Your task to perform on an android device: turn off sleep mode Image 0: 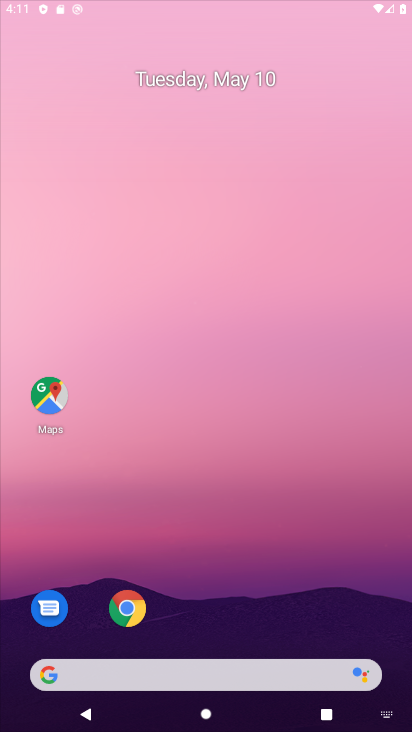
Step 0: drag from (297, 664) to (272, 27)
Your task to perform on an android device: turn off sleep mode Image 1: 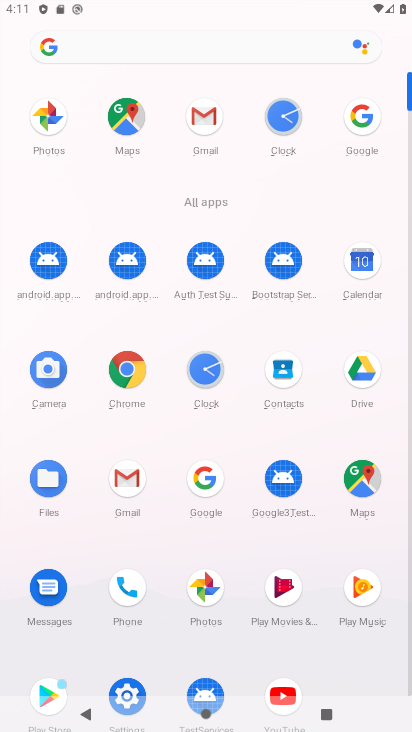
Step 1: drag from (171, 586) to (91, 34)
Your task to perform on an android device: turn off sleep mode Image 2: 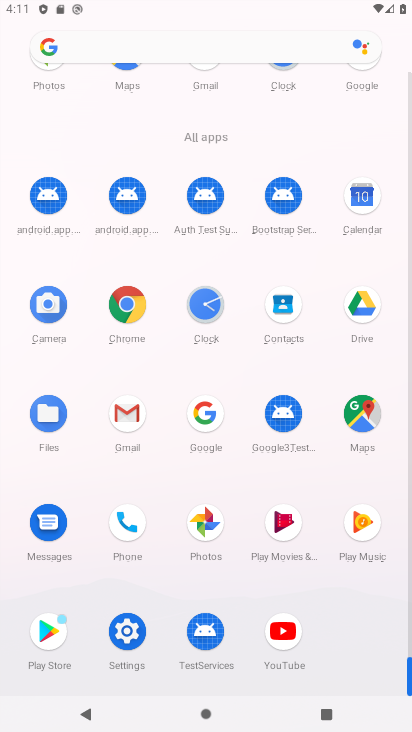
Step 2: click (131, 628)
Your task to perform on an android device: turn off sleep mode Image 3: 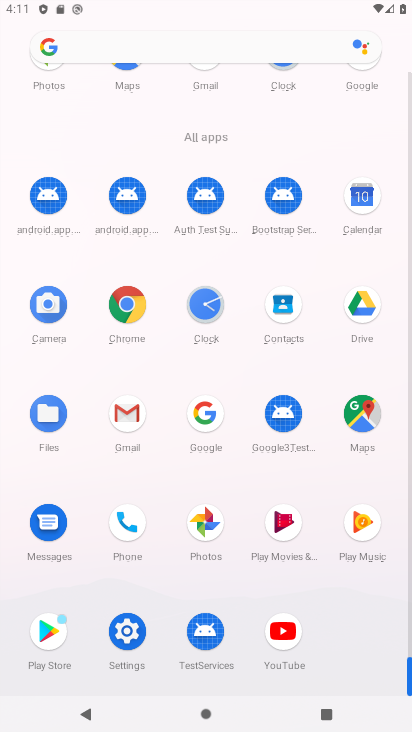
Step 3: click (131, 628)
Your task to perform on an android device: turn off sleep mode Image 4: 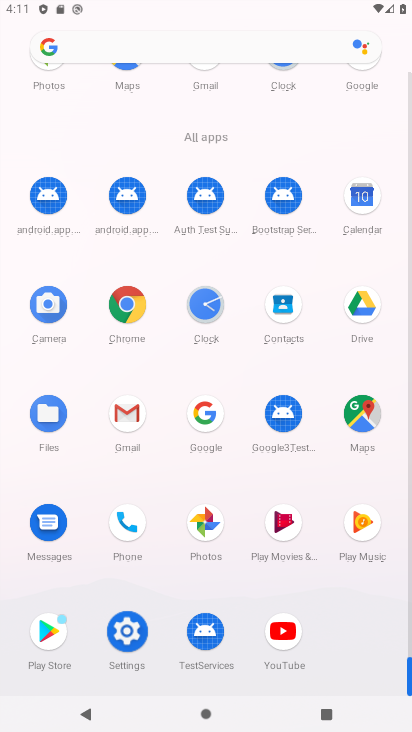
Step 4: click (116, 635)
Your task to perform on an android device: turn off sleep mode Image 5: 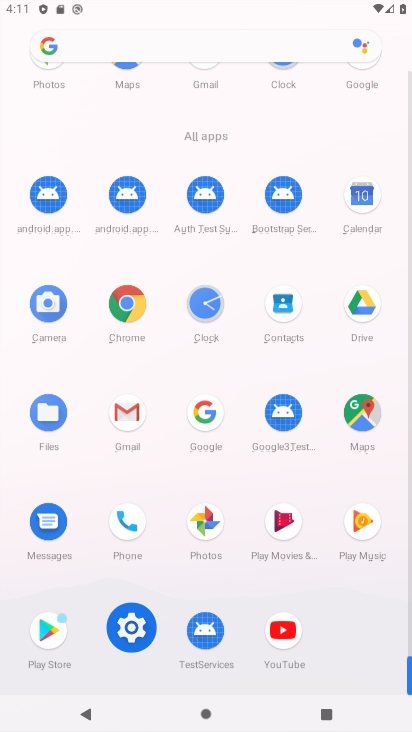
Step 5: drag from (115, 635) to (156, 640)
Your task to perform on an android device: turn off sleep mode Image 6: 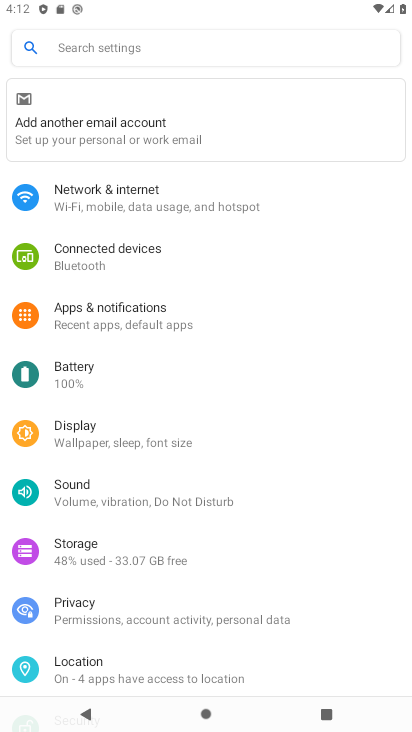
Step 6: click (78, 433)
Your task to perform on an android device: turn off sleep mode Image 7: 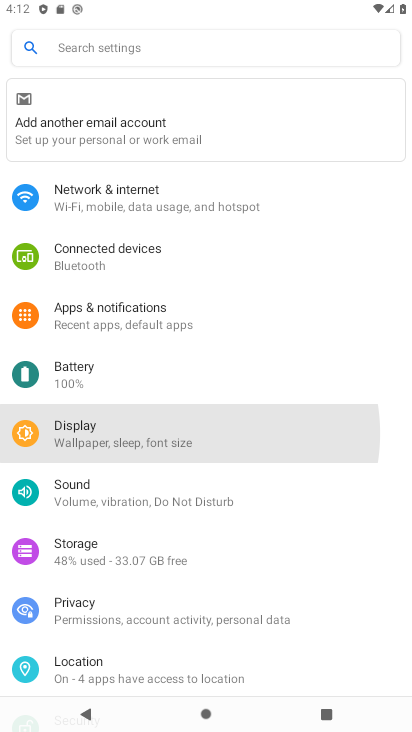
Step 7: click (78, 433)
Your task to perform on an android device: turn off sleep mode Image 8: 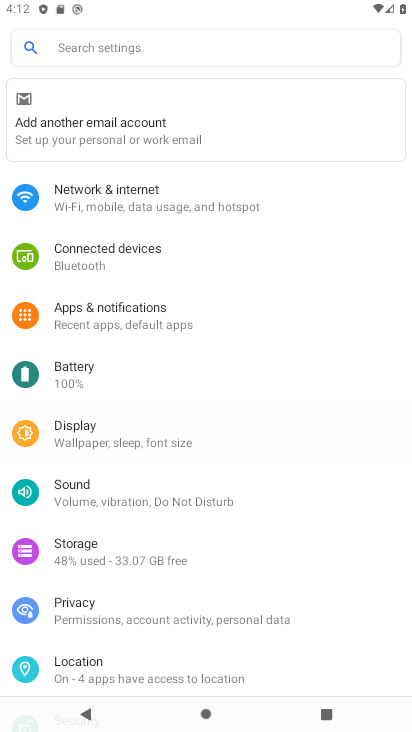
Step 8: click (74, 436)
Your task to perform on an android device: turn off sleep mode Image 9: 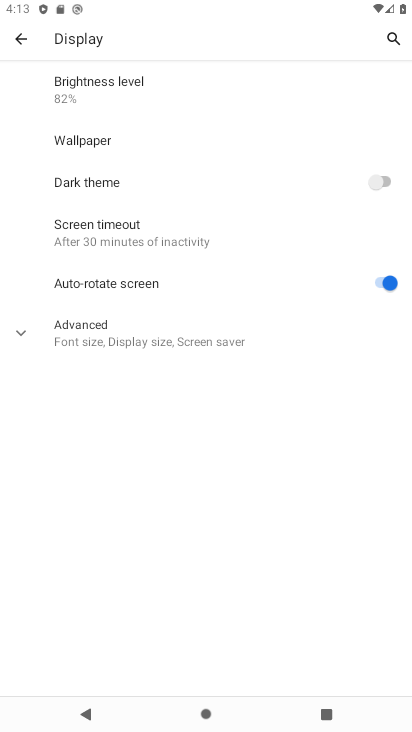
Step 9: click (16, 29)
Your task to perform on an android device: turn off sleep mode Image 10: 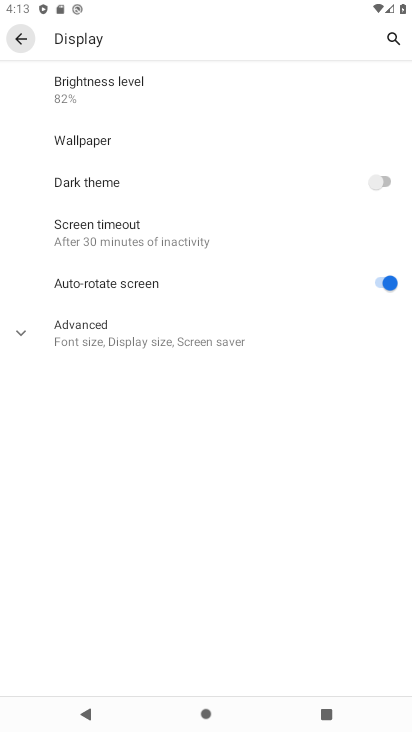
Step 10: click (16, 29)
Your task to perform on an android device: turn off sleep mode Image 11: 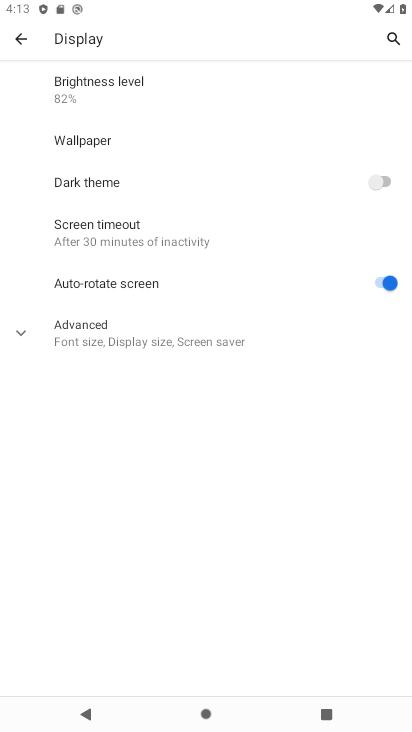
Step 11: click (16, 29)
Your task to perform on an android device: turn off sleep mode Image 12: 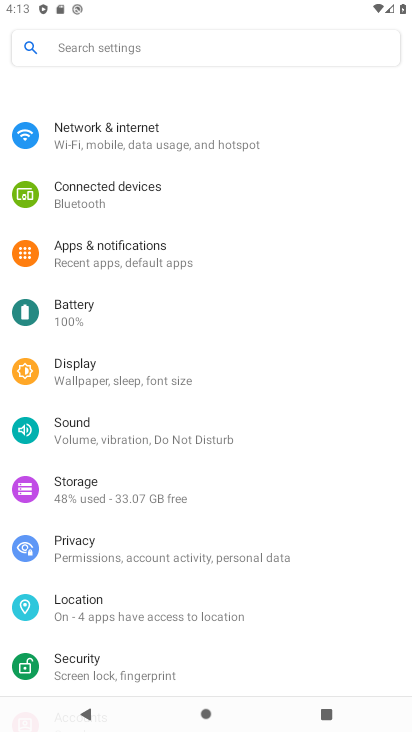
Step 12: click (17, 43)
Your task to perform on an android device: turn off sleep mode Image 13: 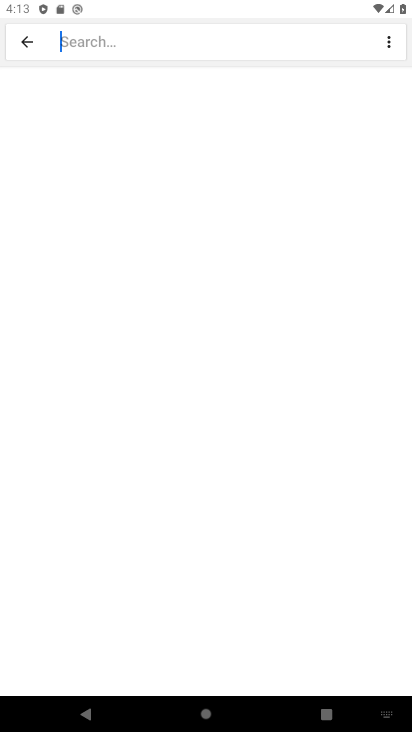
Step 13: press back button
Your task to perform on an android device: turn off sleep mode Image 14: 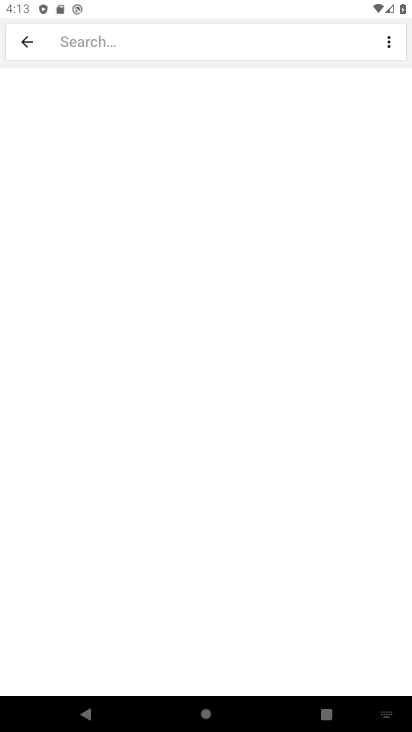
Step 14: press back button
Your task to perform on an android device: turn off sleep mode Image 15: 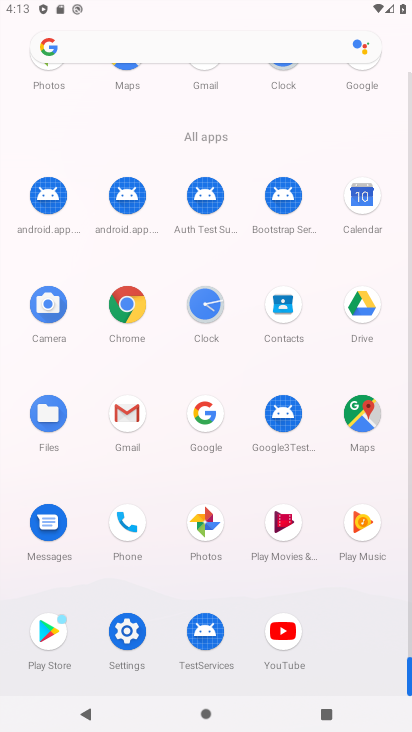
Step 15: click (122, 626)
Your task to perform on an android device: turn off sleep mode Image 16: 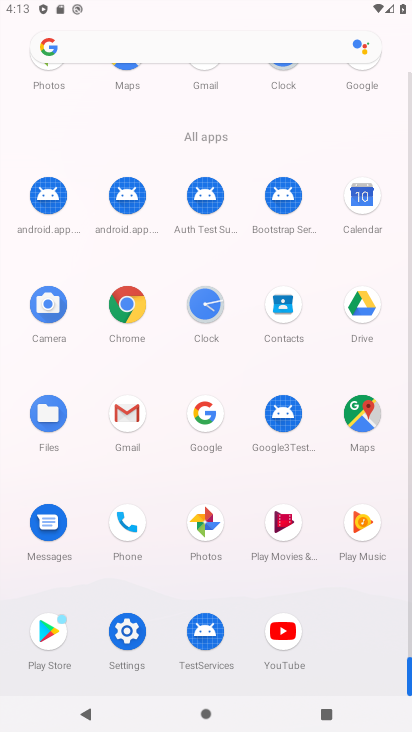
Step 16: click (116, 627)
Your task to perform on an android device: turn off sleep mode Image 17: 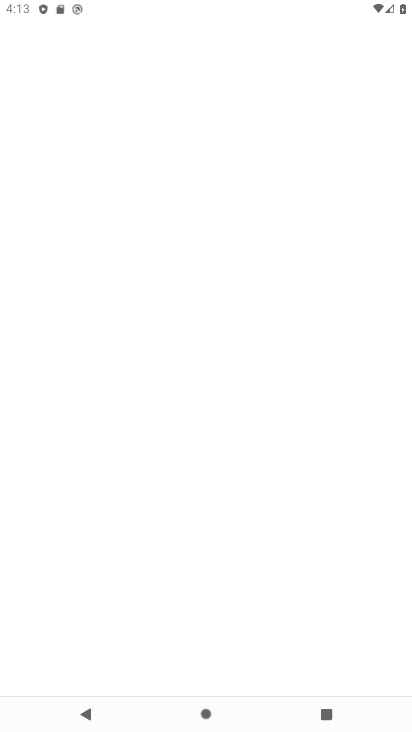
Step 17: click (115, 629)
Your task to perform on an android device: turn off sleep mode Image 18: 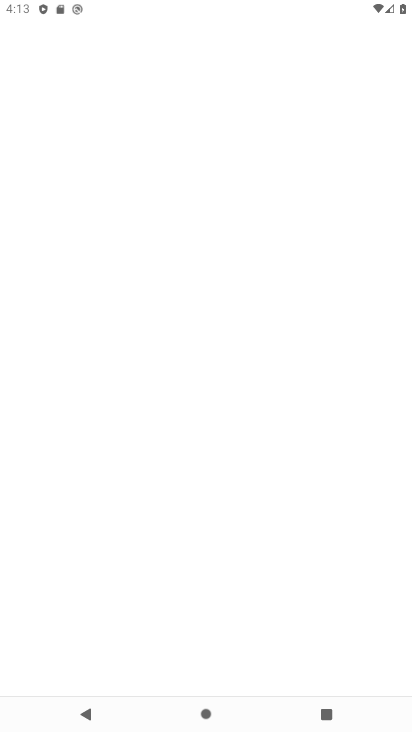
Step 18: click (115, 629)
Your task to perform on an android device: turn off sleep mode Image 19: 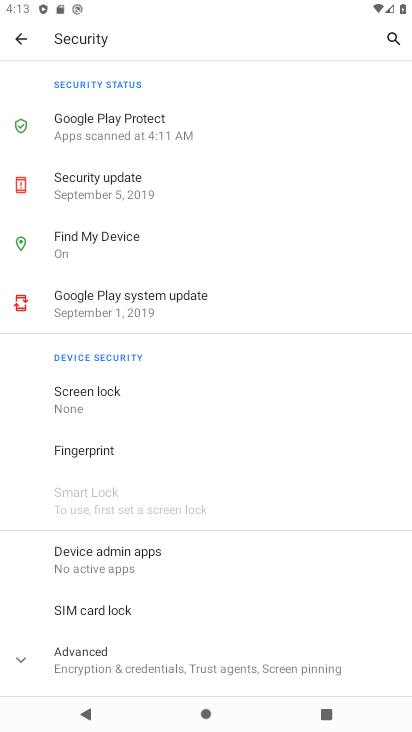
Step 19: click (23, 40)
Your task to perform on an android device: turn off sleep mode Image 20: 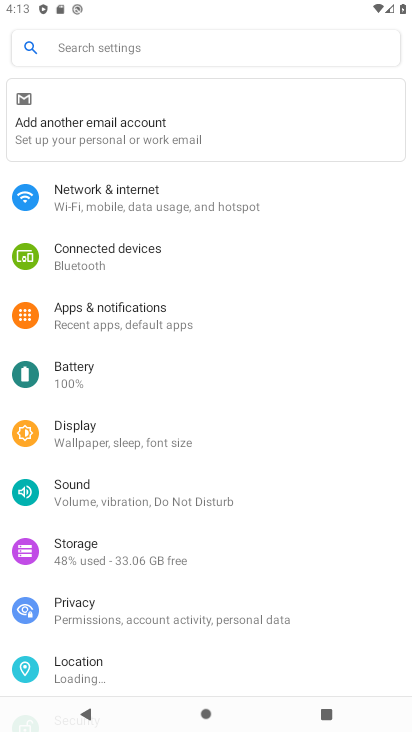
Step 20: click (87, 442)
Your task to perform on an android device: turn off sleep mode Image 21: 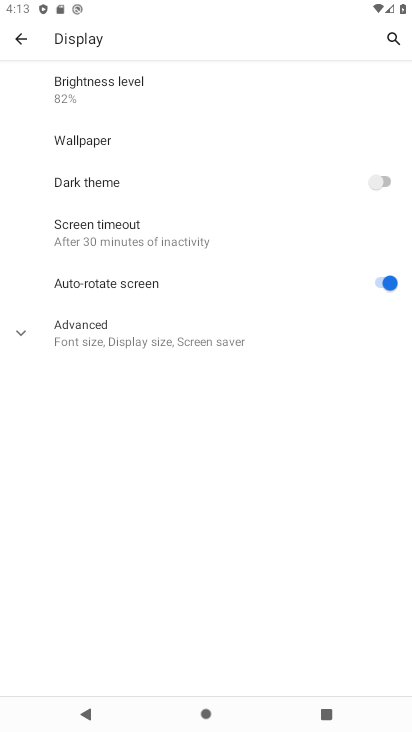
Step 21: task complete